Your task to perform on an android device: check storage Image 0: 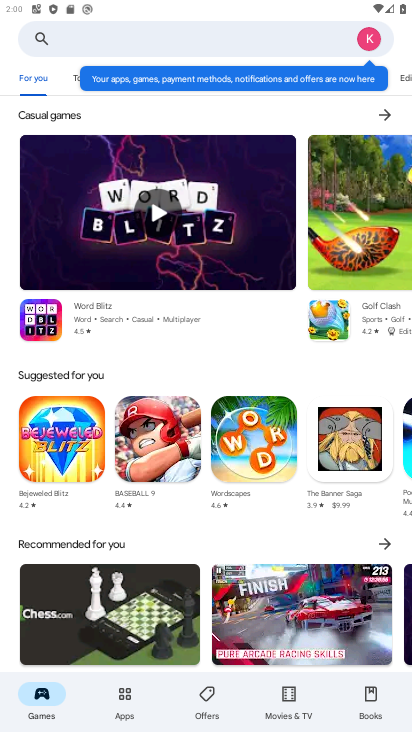
Step 0: press home button
Your task to perform on an android device: check storage Image 1: 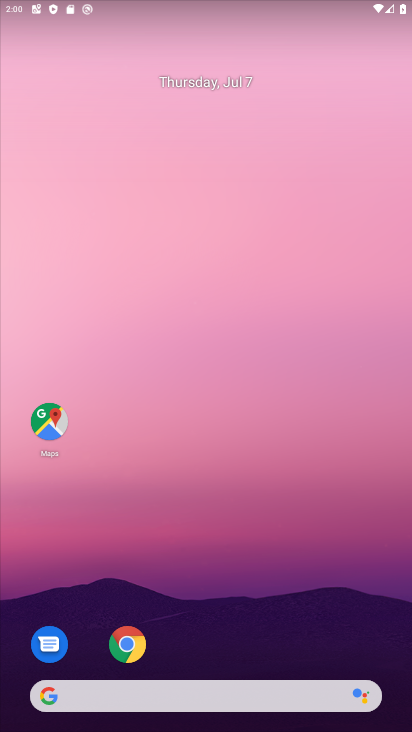
Step 1: drag from (169, 695) to (180, 97)
Your task to perform on an android device: check storage Image 2: 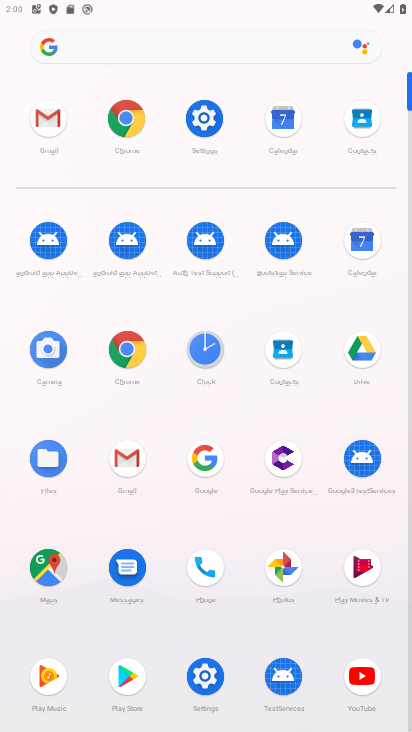
Step 2: click (204, 126)
Your task to perform on an android device: check storage Image 3: 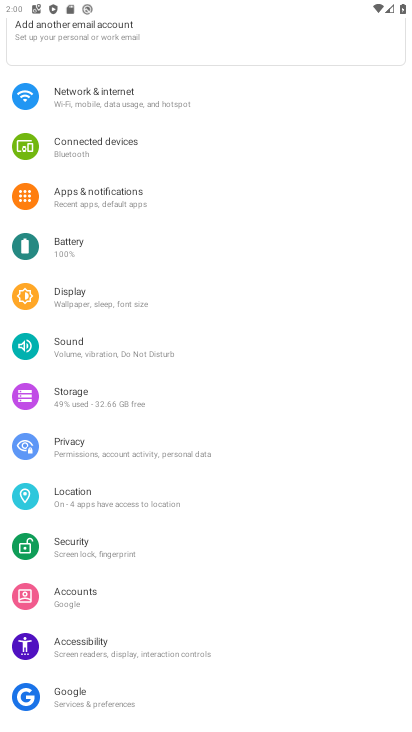
Step 3: click (102, 399)
Your task to perform on an android device: check storage Image 4: 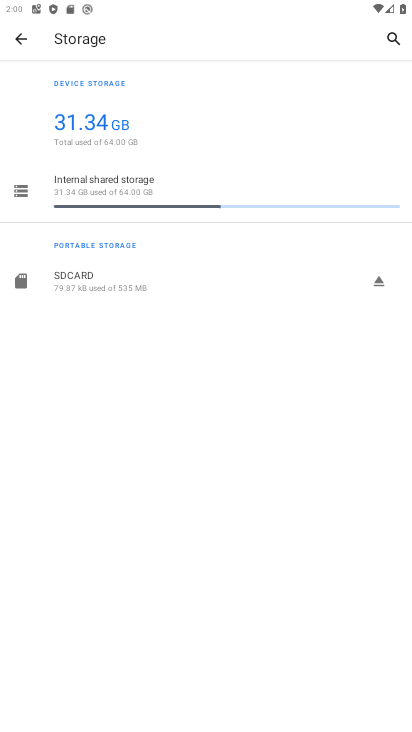
Step 4: task complete